Your task to perform on an android device: change the clock display to digital Image 0: 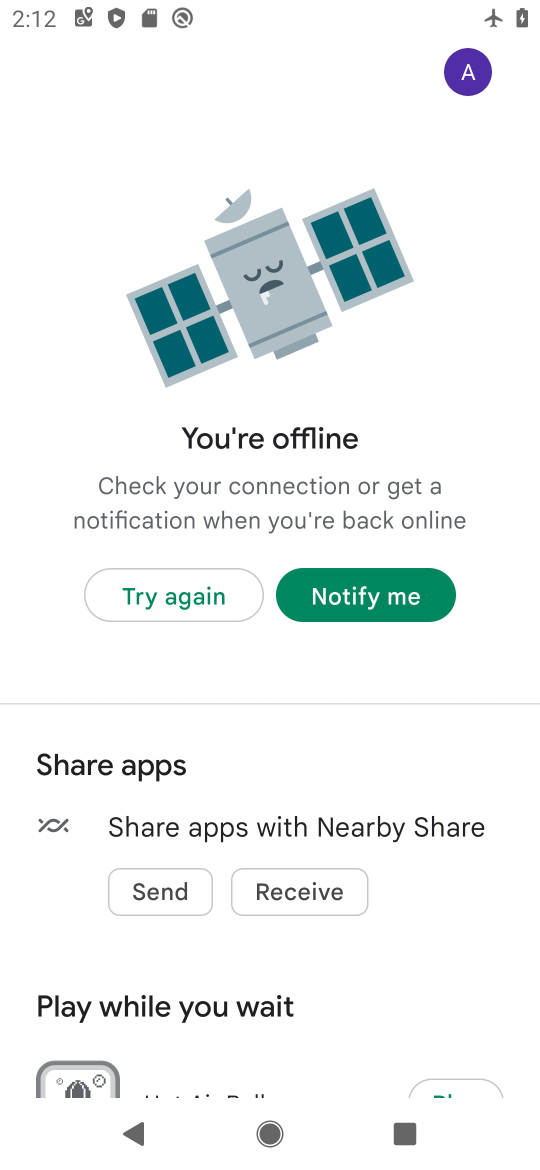
Step 0: press home button
Your task to perform on an android device: change the clock display to digital Image 1: 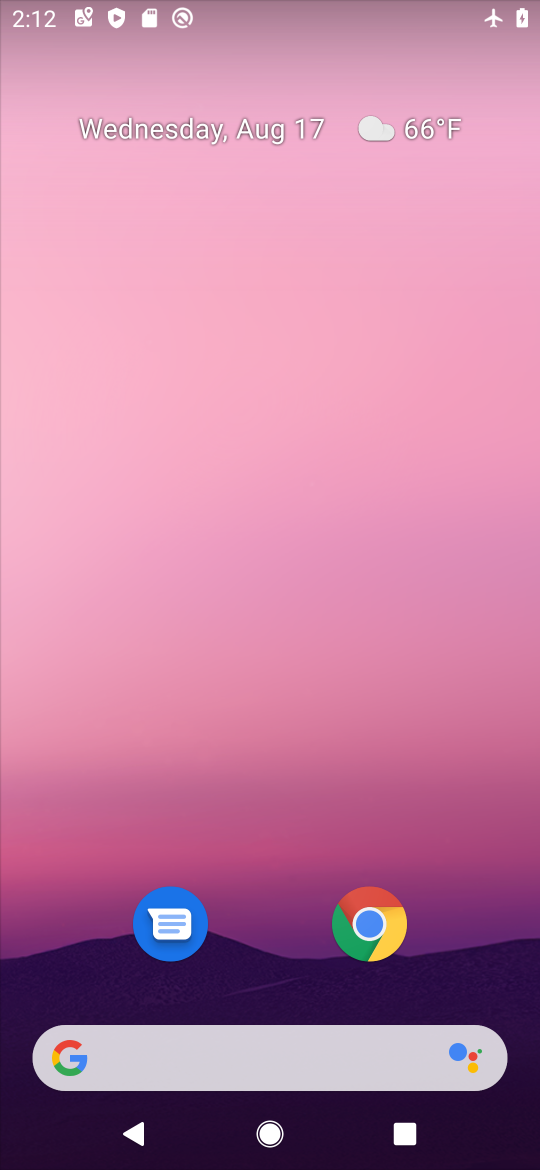
Step 1: drag from (268, 1057) to (302, 117)
Your task to perform on an android device: change the clock display to digital Image 2: 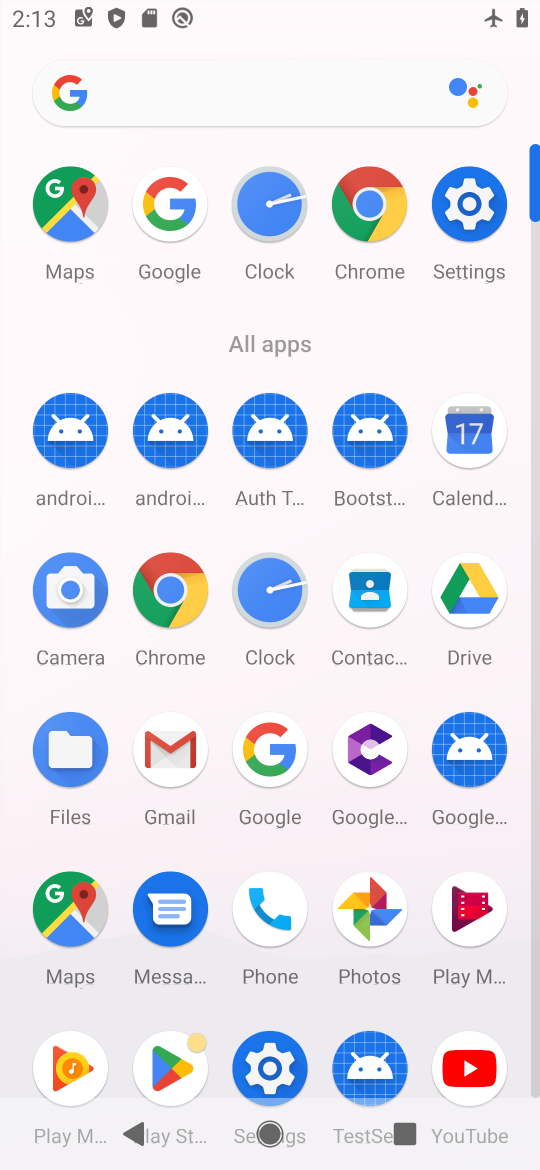
Step 2: click (270, 206)
Your task to perform on an android device: change the clock display to digital Image 3: 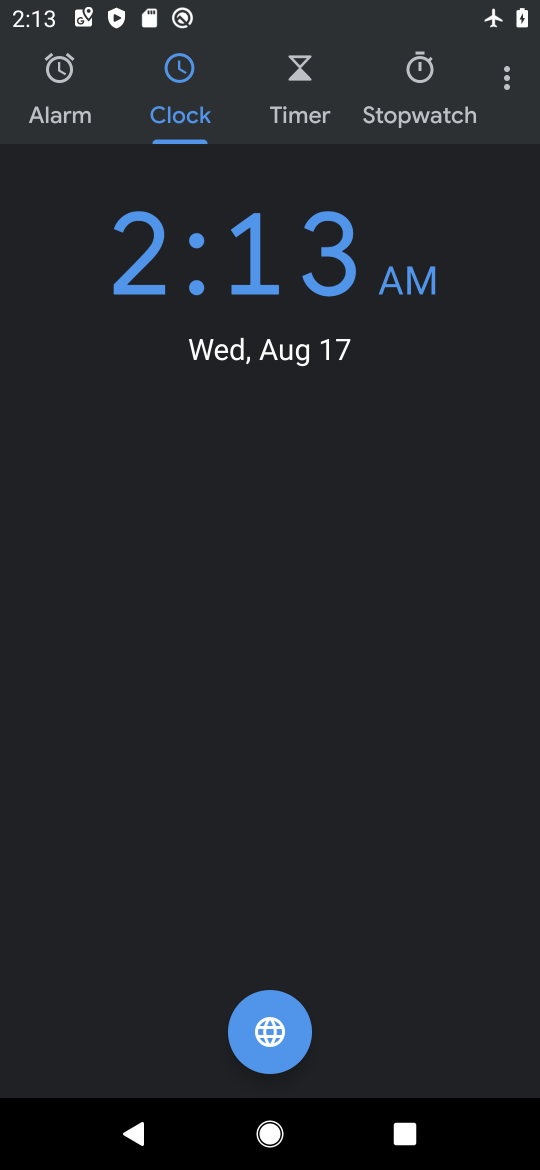
Step 3: click (505, 82)
Your task to perform on an android device: change the clock display to digital Image 4: 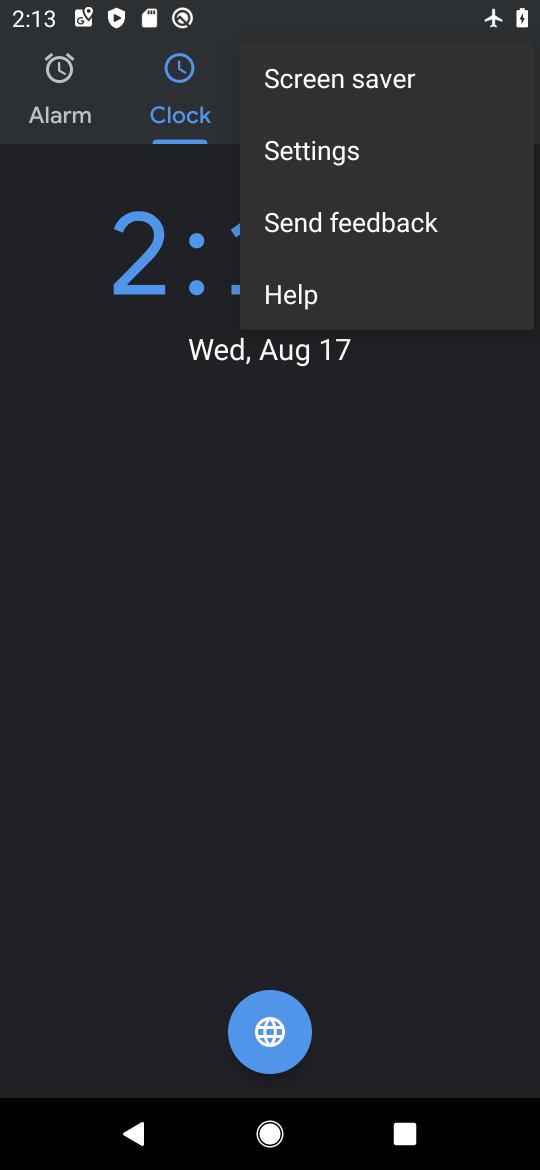
Step 4: click (334, 149)
Your task to perform on an android device: change the clock display to digital Image 5: 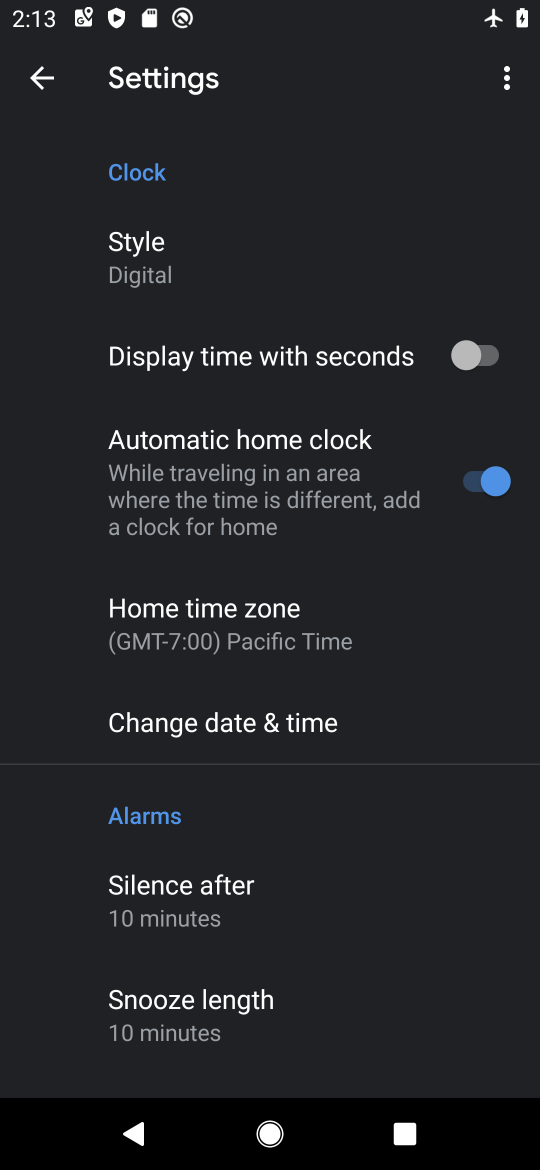
Step 5: click (156, 248)
Your task to perform on an android device: change the clock display to digital Image 6: 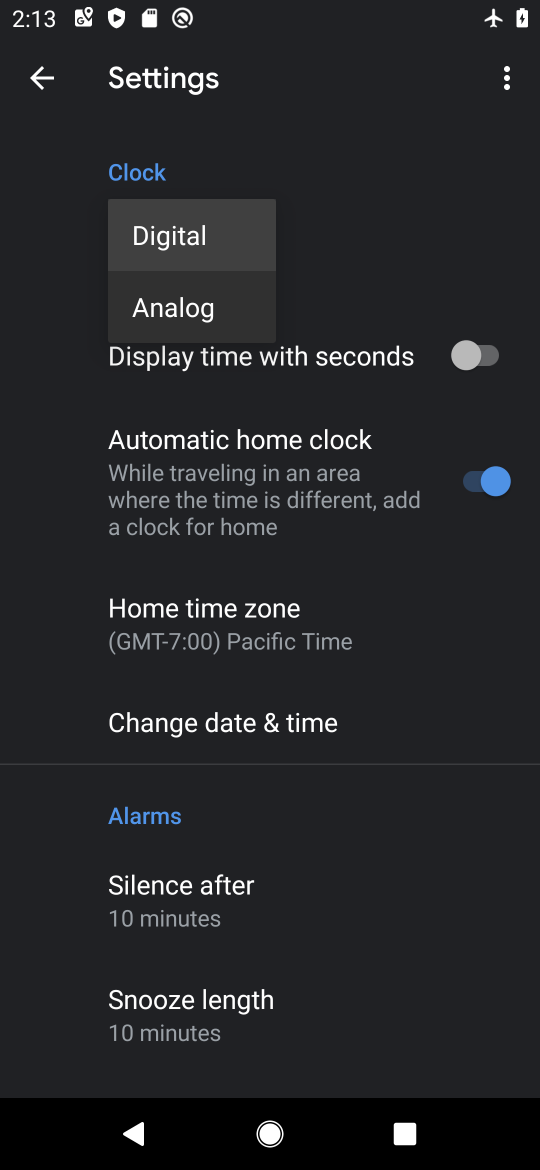
Step 6: click (159, 256)
Your task to perform on an android device: change the clock display to digital Image 7: 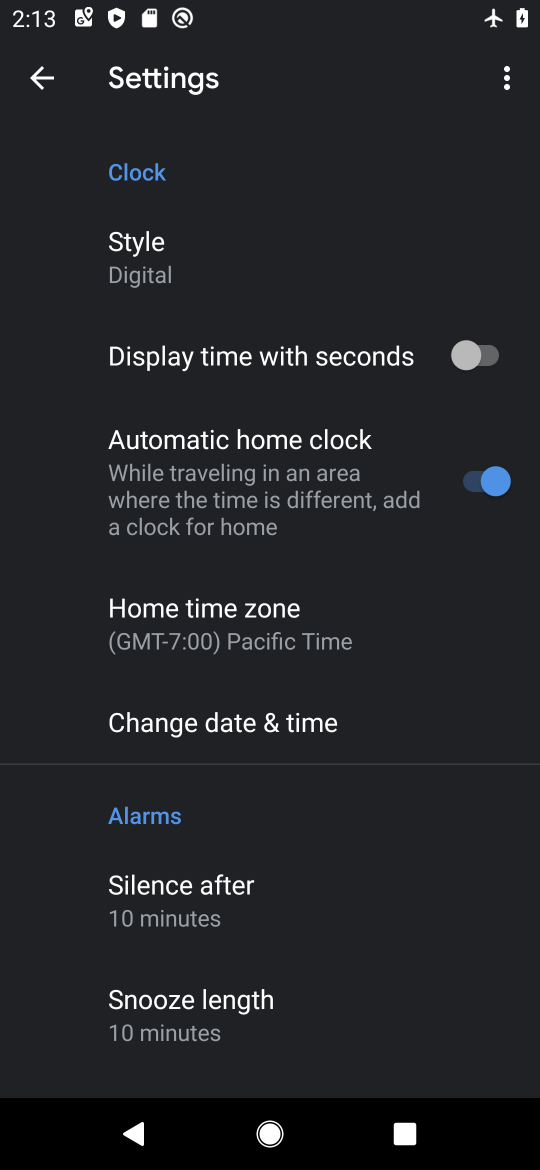
Step 7: task complete